Your task to perform on an android device: open app "Microsoft Outlook" (install if not already installed), go to login, and select forgot password Image 0: 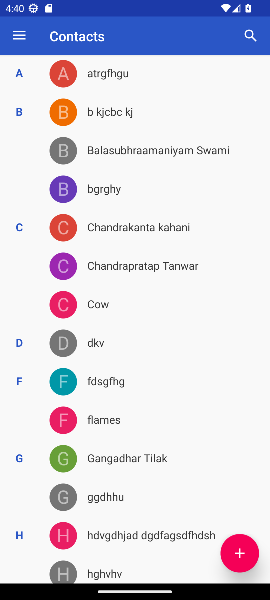
Step 0: press home button
Your task to perform on an android device: open app "Microsoft Outlook" (install if not already installed), go to login, and select forgot password Image 1: 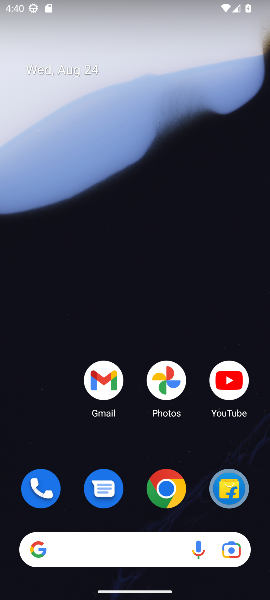
Step 1: drag from (131, 514) to (110, 59)
Your task to perform on an android device: open app "Microsoft Outlook" (install if not already installed), go to login, and select forgot password Image 2: 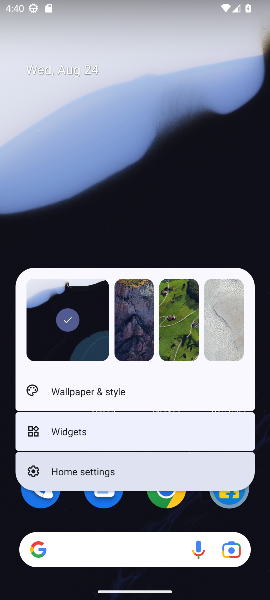
Step 2: click (152, 103)
Your task to perform on an android device: open app "Microsoft Outlook" (install if not already installed), go to login, and select forgot password Image 3: 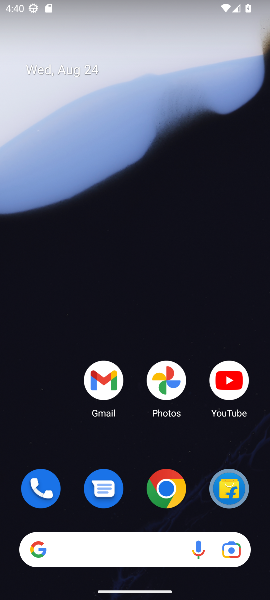
Step 3: drag from (139, 518) to (137, 143)
Your task to perform on an android device: open app "Microsoft Outlook" (install if not already installed), go to login, and select forgot password Image 4: 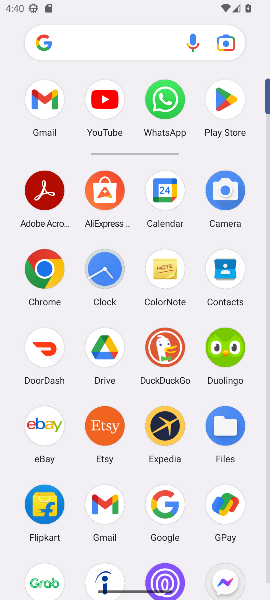
Step 4: click (224, 115)
Your task to perform on an android device: open app "Microsoft Outlook" (install if not already installed), go to login, and select forgot password Image 5: 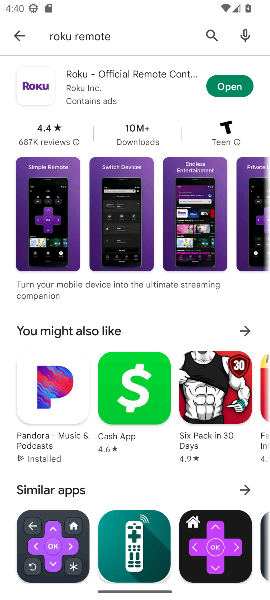
Step 5: click (213, 31)
Your task to perform on an android device: open app "Microsoft Outlook" (install if not already installed), go to login, and select forgot password Image 6: 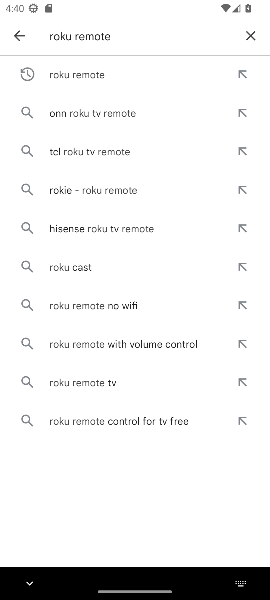
Step 6: click (254, 35)
Your task to perform on an android device: open app "Microsoft Outlook" (install if not already installed), go to login, and select forgot password Image 7: 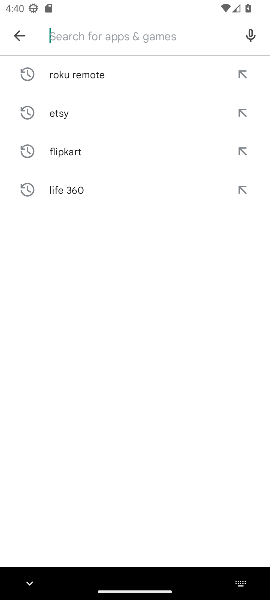
Step 7: type "microsoft"
Your task to perform on an android device: open app "Microsoft Outlook" (install if not already installed), go to login, and select forgot password Image 8: 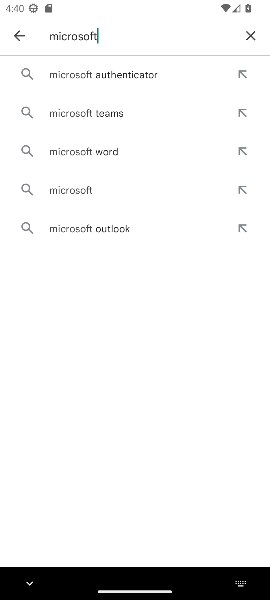
Step 8: click (140, 220)
Your task to perform on an android device: open app "Microsoft Outlook" (install if not already installed), go to login, and select forgot password Image 9: 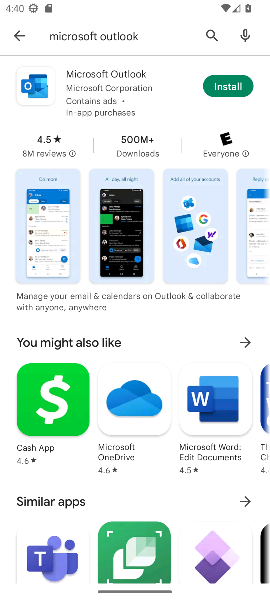
Step 9: click (218, 91)
Your task to perform on an android device: open app "Microsoft Outlook" (install if not already installed), go to login, and select forgot password Image 10: 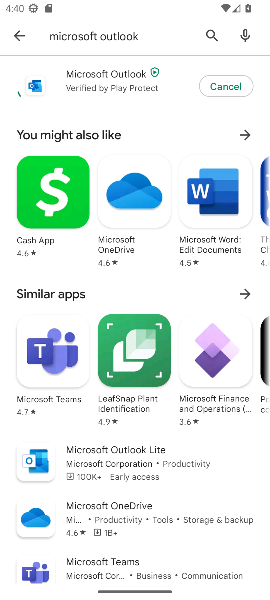
Step 10: task complete